Your task to perform on an android device: Open Reddit.com Image 0: 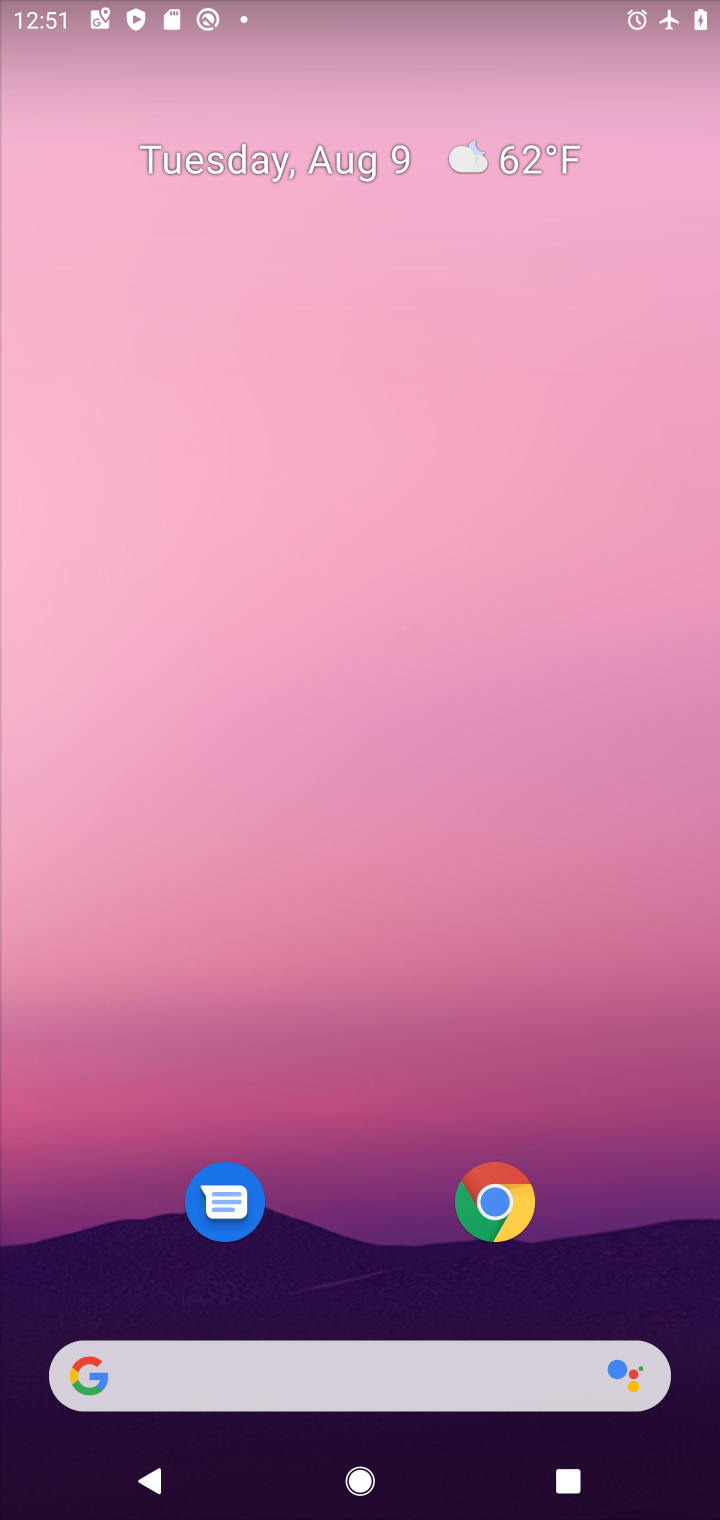
Step 0: click (486, 36)
Your task to perform on an android device: Open Reddit.com Image 1: 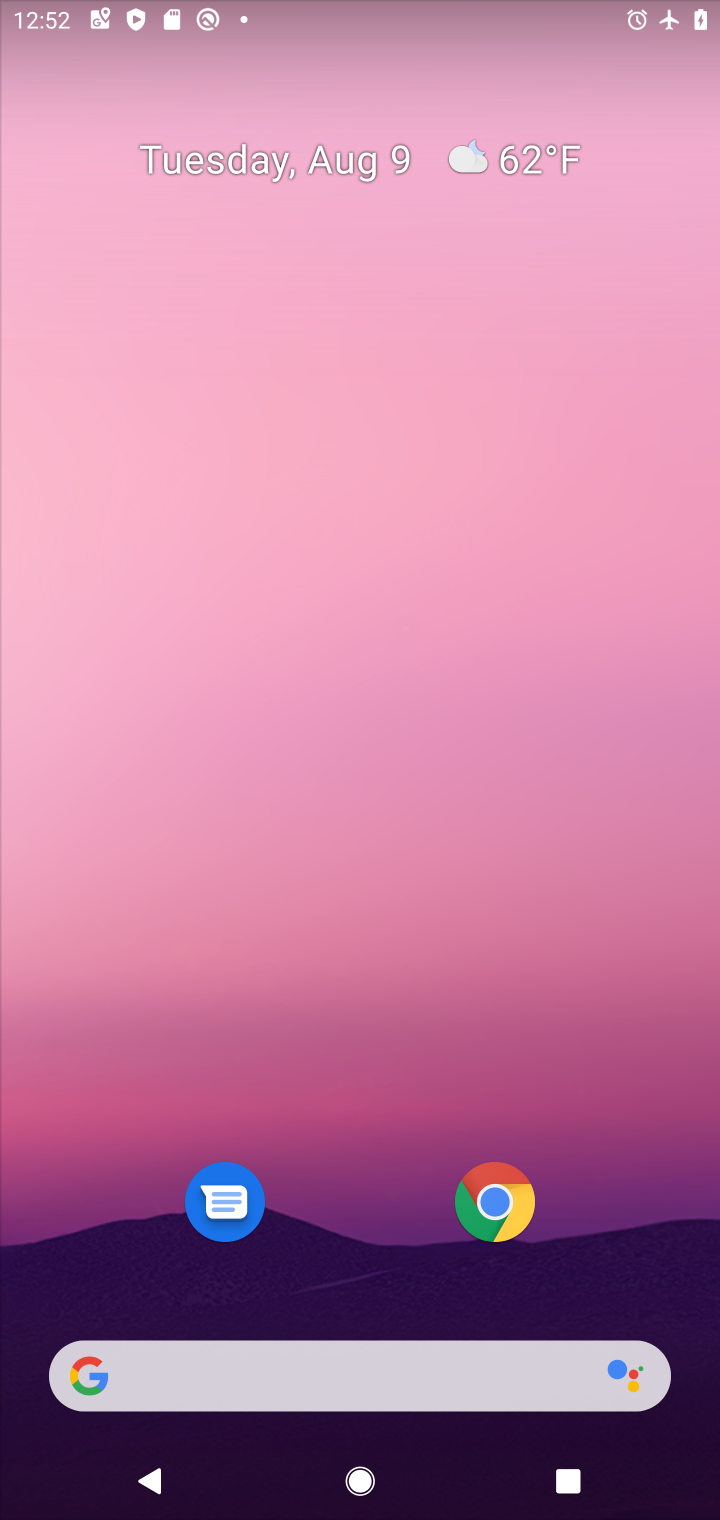
Step 1: drag from (328, 1214) to (355, 442)
Your task to perform on an android device: Open Reddit.com Image 2: 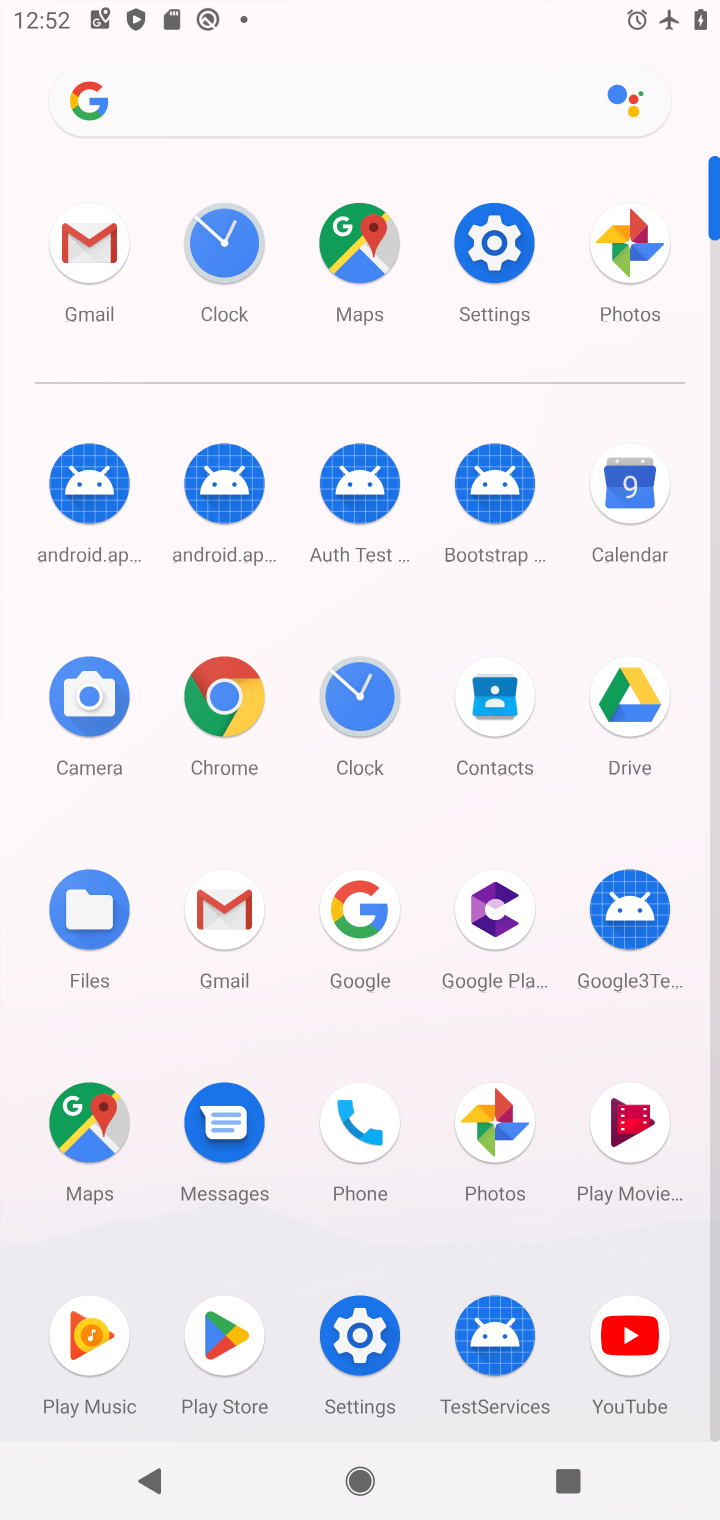
Step 2: click (251, 730)
Your task to perform on an android device: Open Reddit.com Image 3: 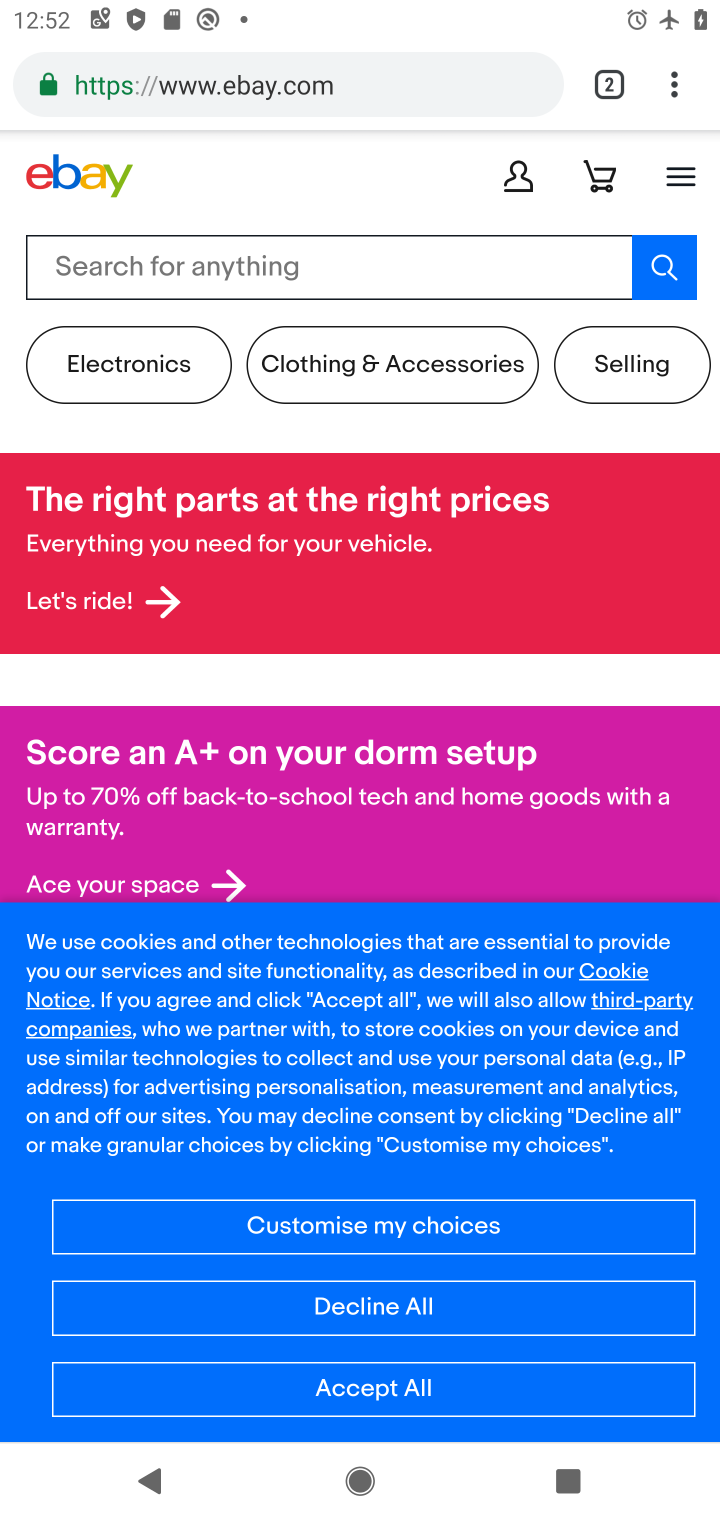
Step 3: click (249, 84)
Your task to perform on an android device: Open Reddit.com Image 4: 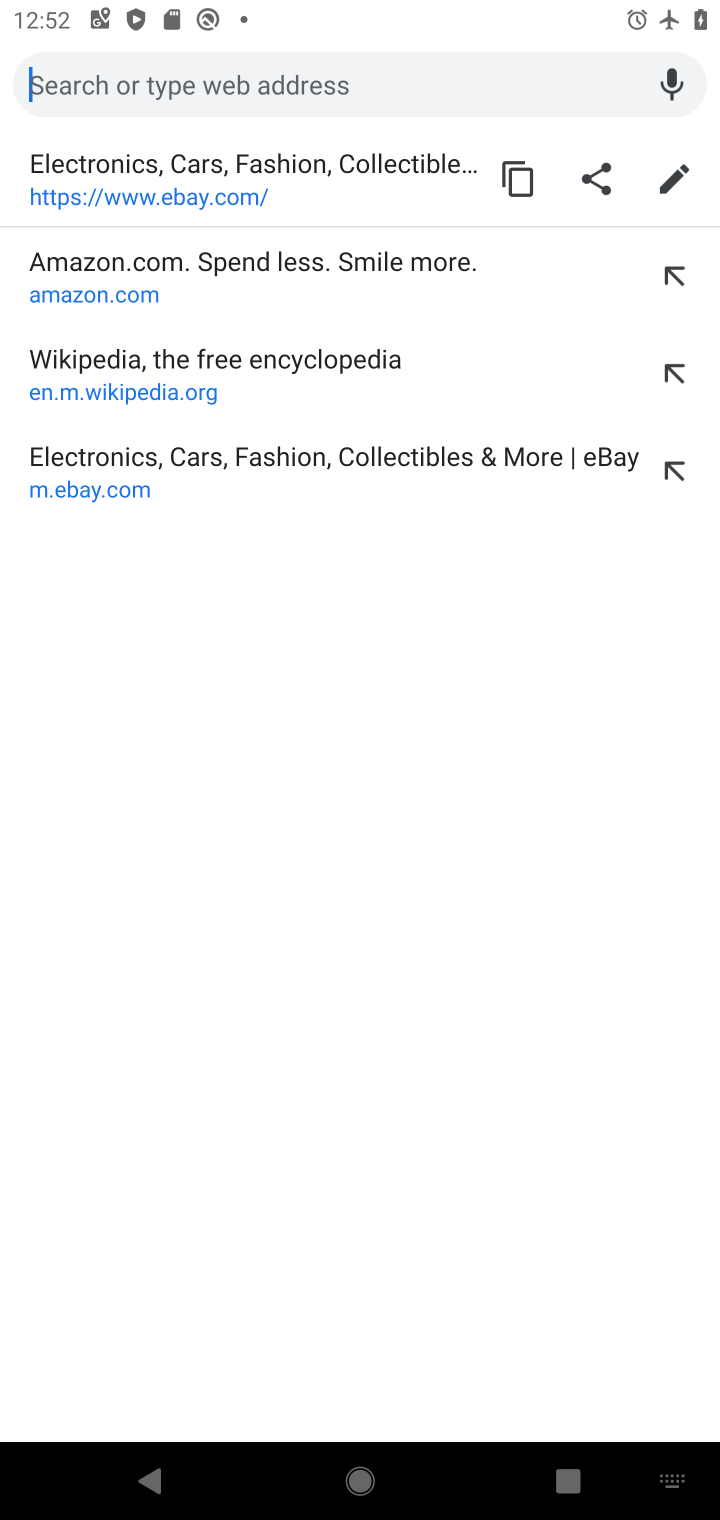
Step 4: type "www.reddit.com"
Your task to perform on an android device: Open Reddit.com Image 5: 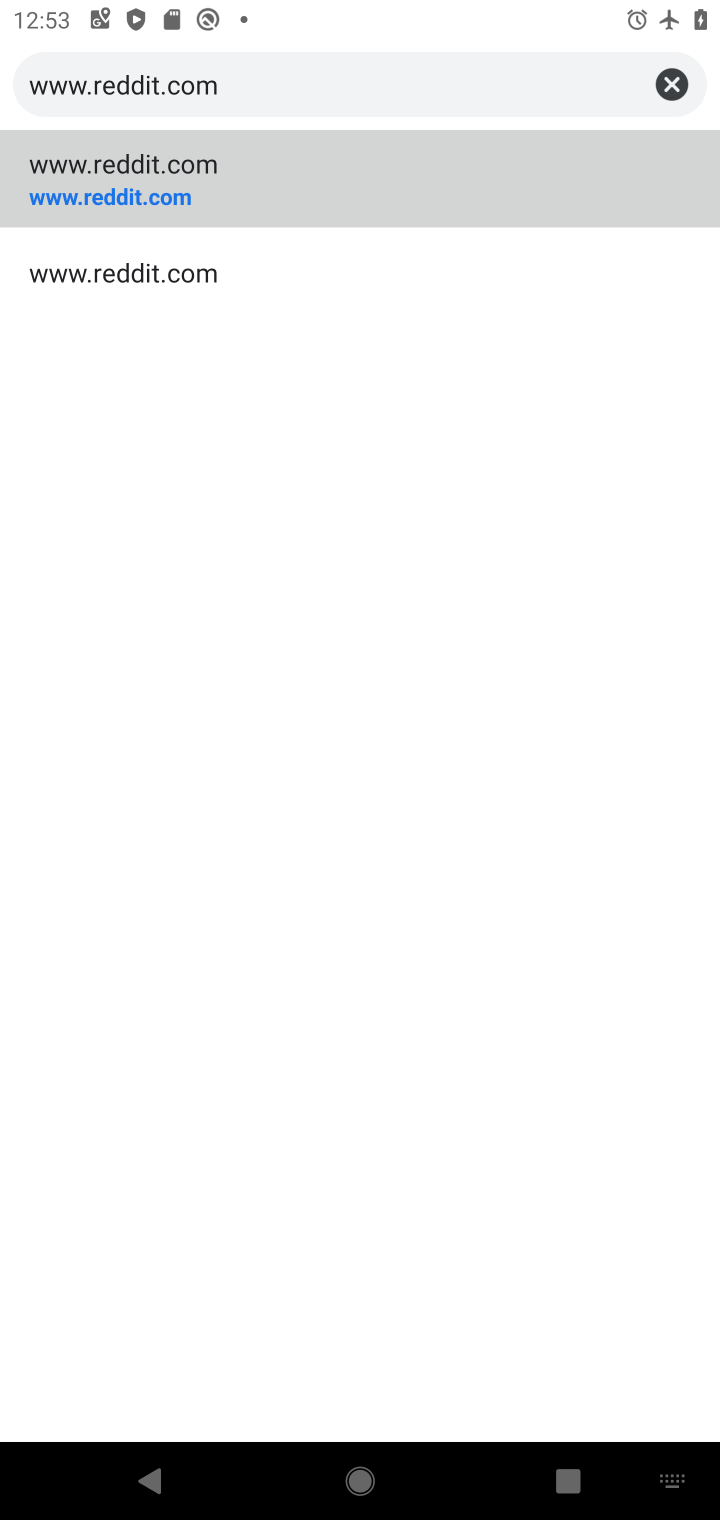
Step 5: click (110, 175)
Your task to perform on an android device: Open Reddit.com Image 6: 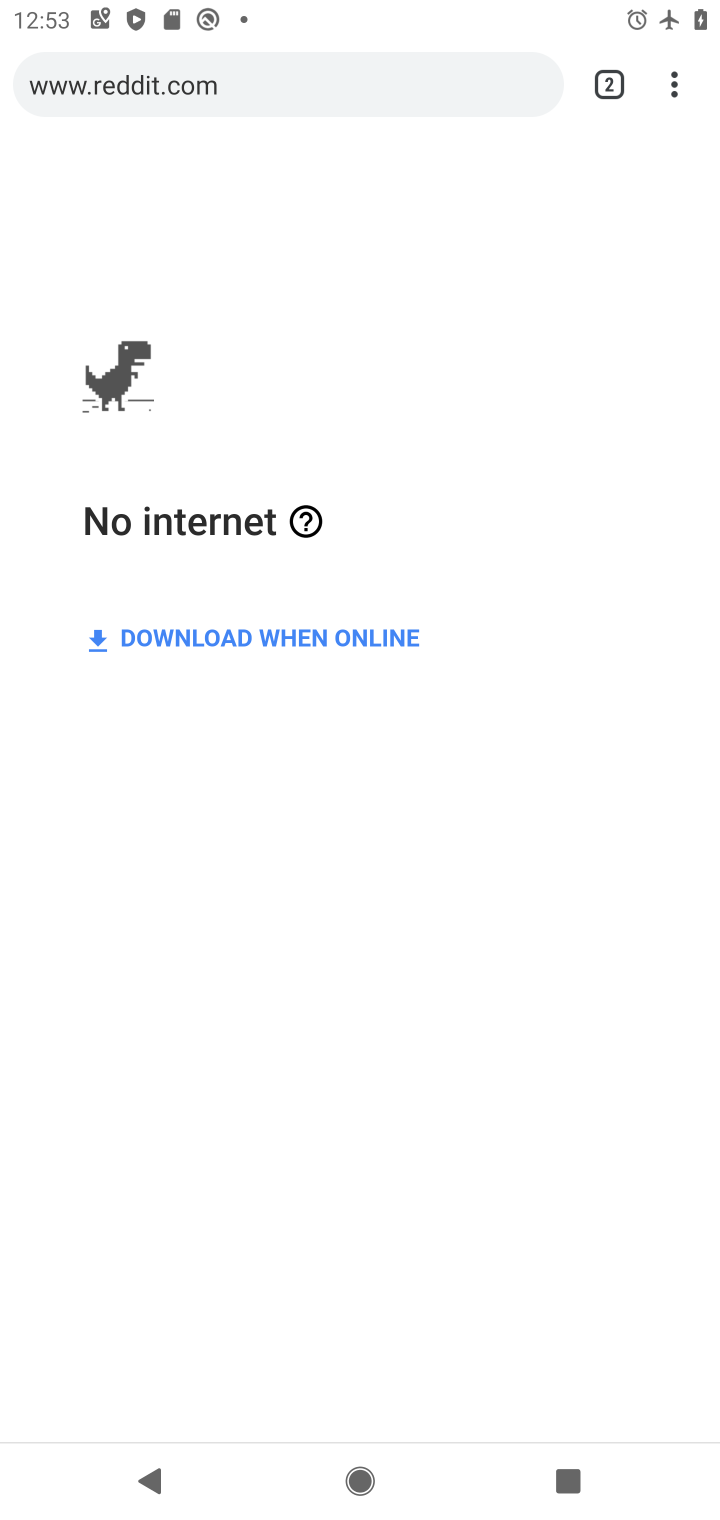
Step 6: press back button
Your task to perform on an android device: Open Reddit.com Image 7: 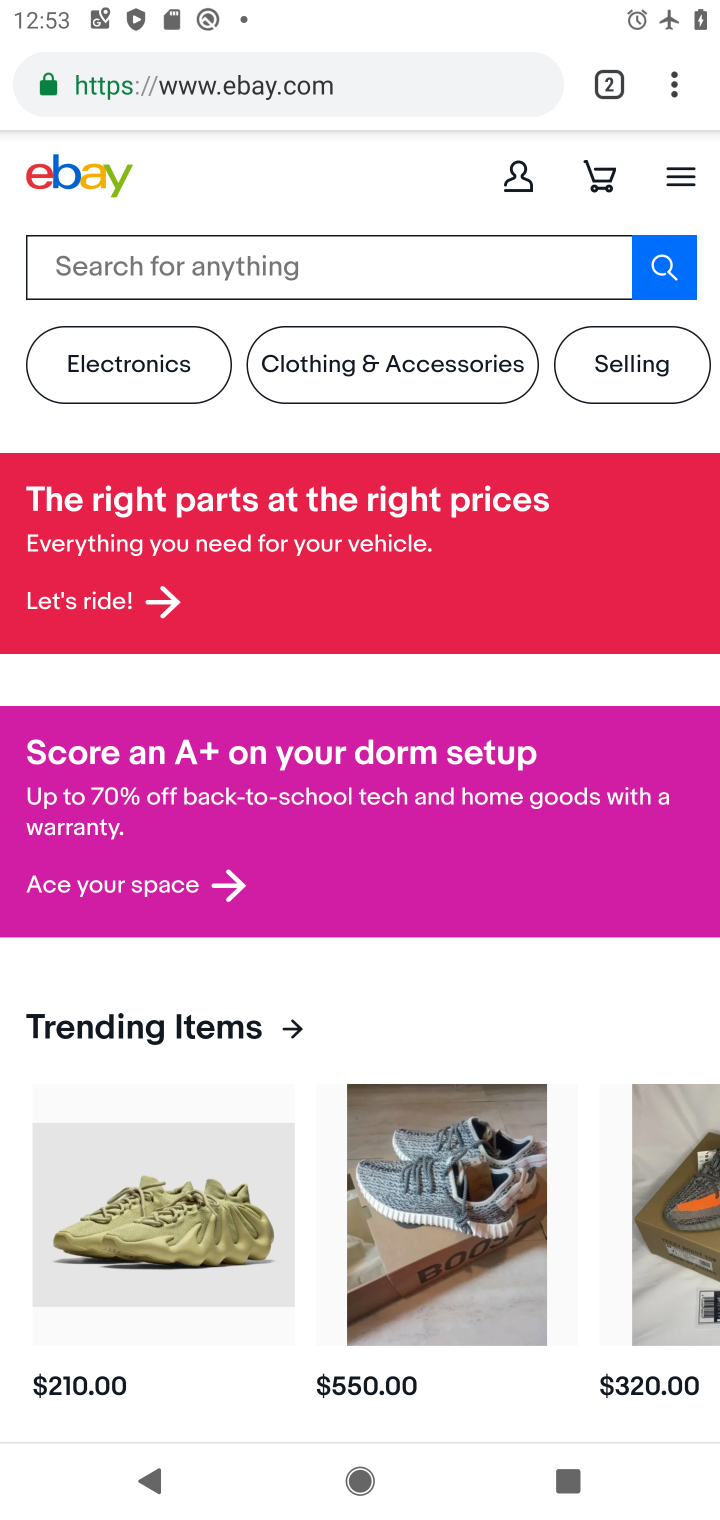
Step 7: press back button
Your task to perform on an android device: Open Reddit.com Image 8: 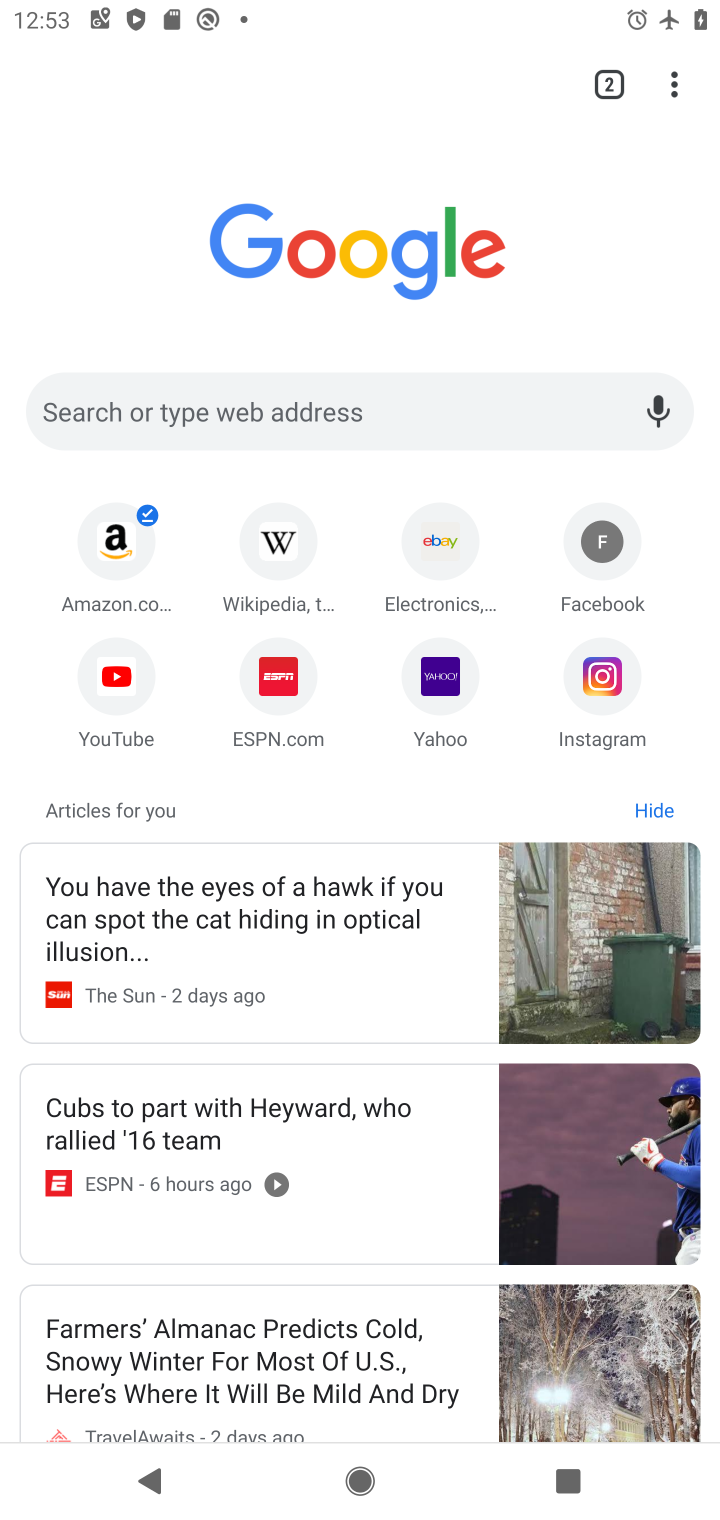
Step 8: press back button
Your task to perform on an android device: Open Reddit.com Image 9: 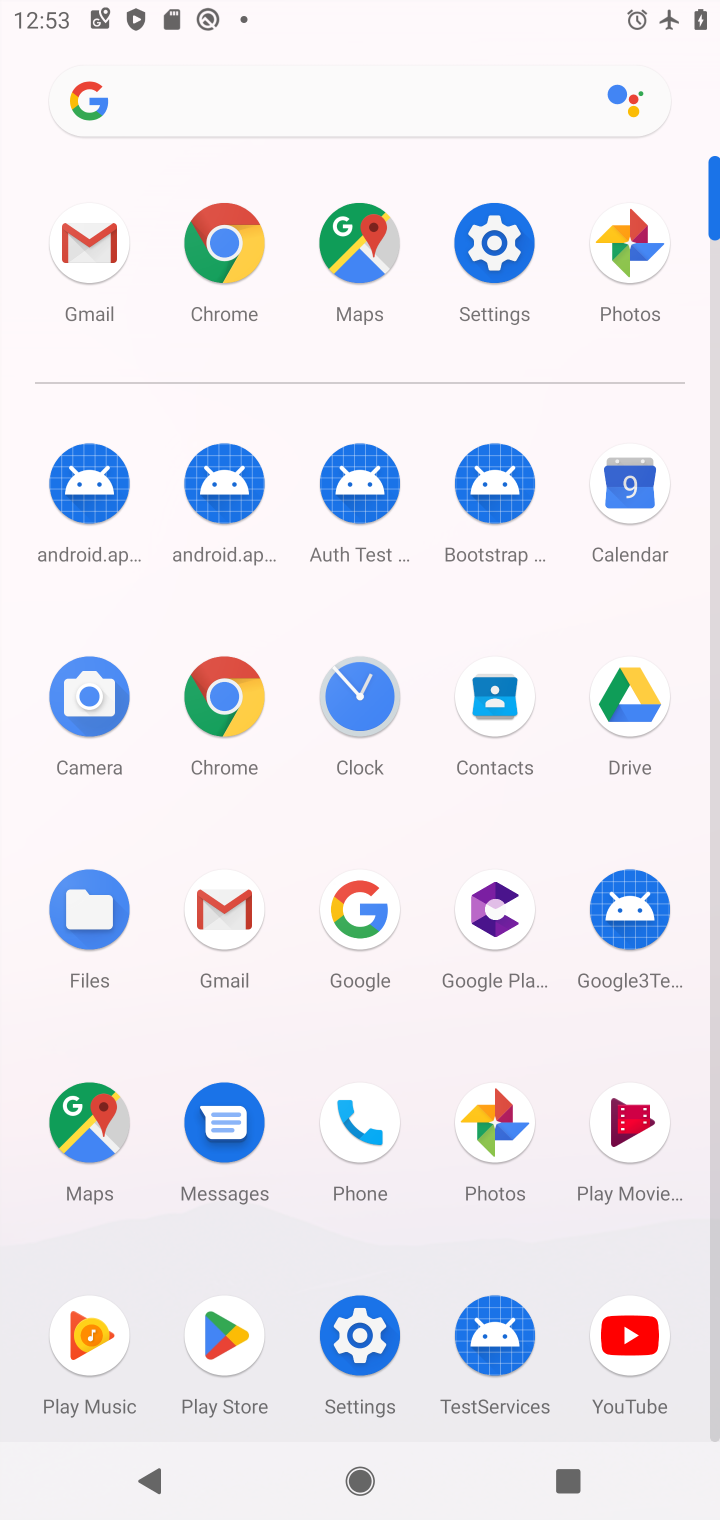
Step 9: click (508, 241)
Your task to perform on an android device: Open Reddit.com Image 10: 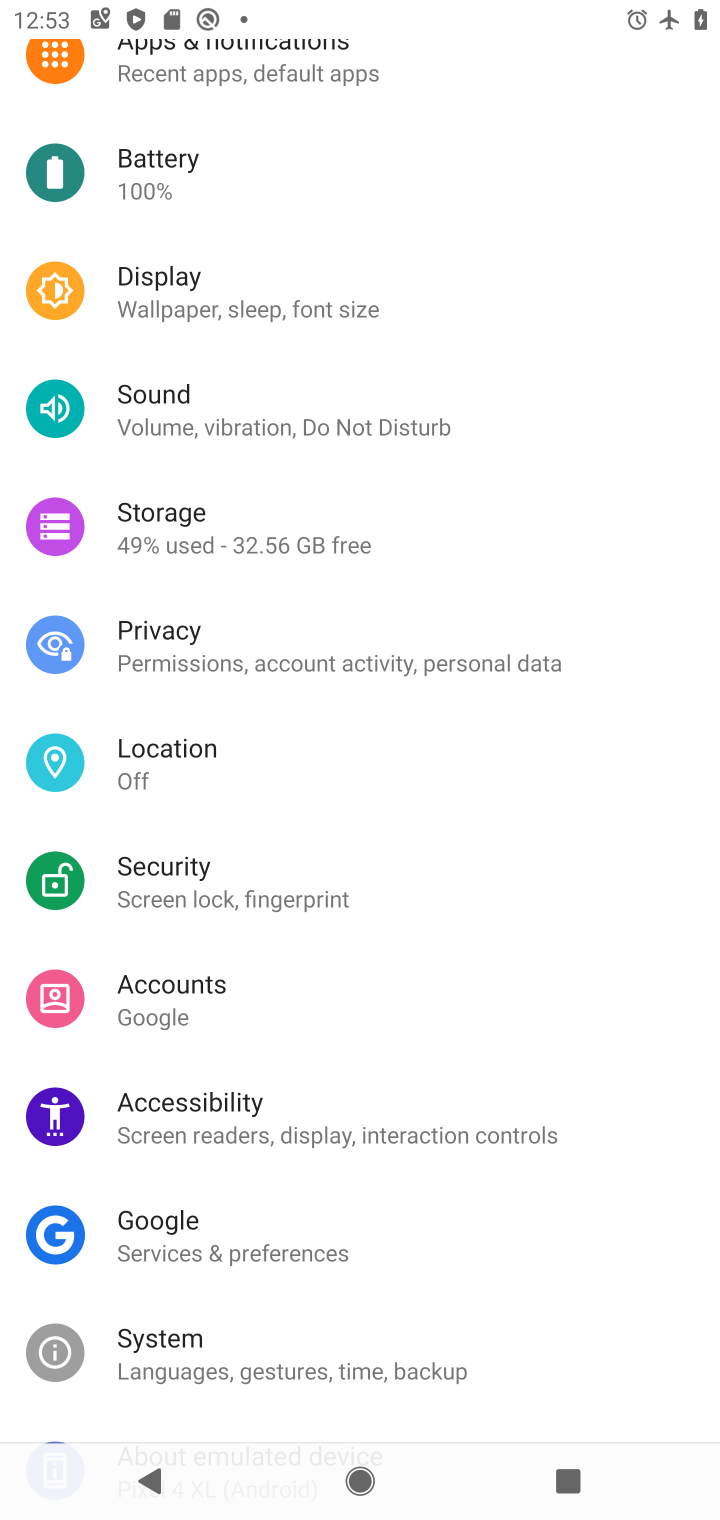
Step 10: drag from (278, 267) to (207, 1445)
Your task to perform on an android device: Open Reddit.com Image 11: 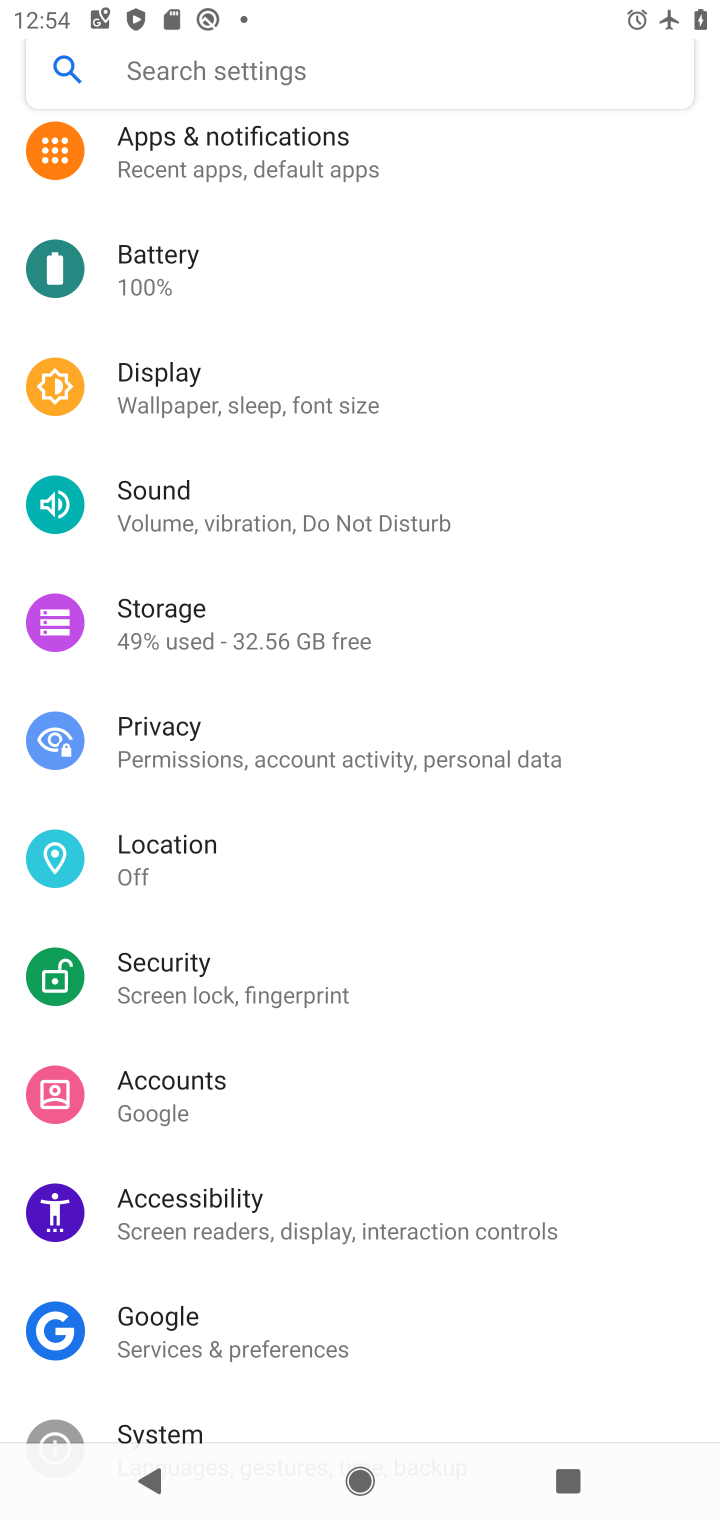
Step 11: drag from (298, 1065) to (298, 1481)
Your task to perform on an android device: Open Reddit.com Image 12: 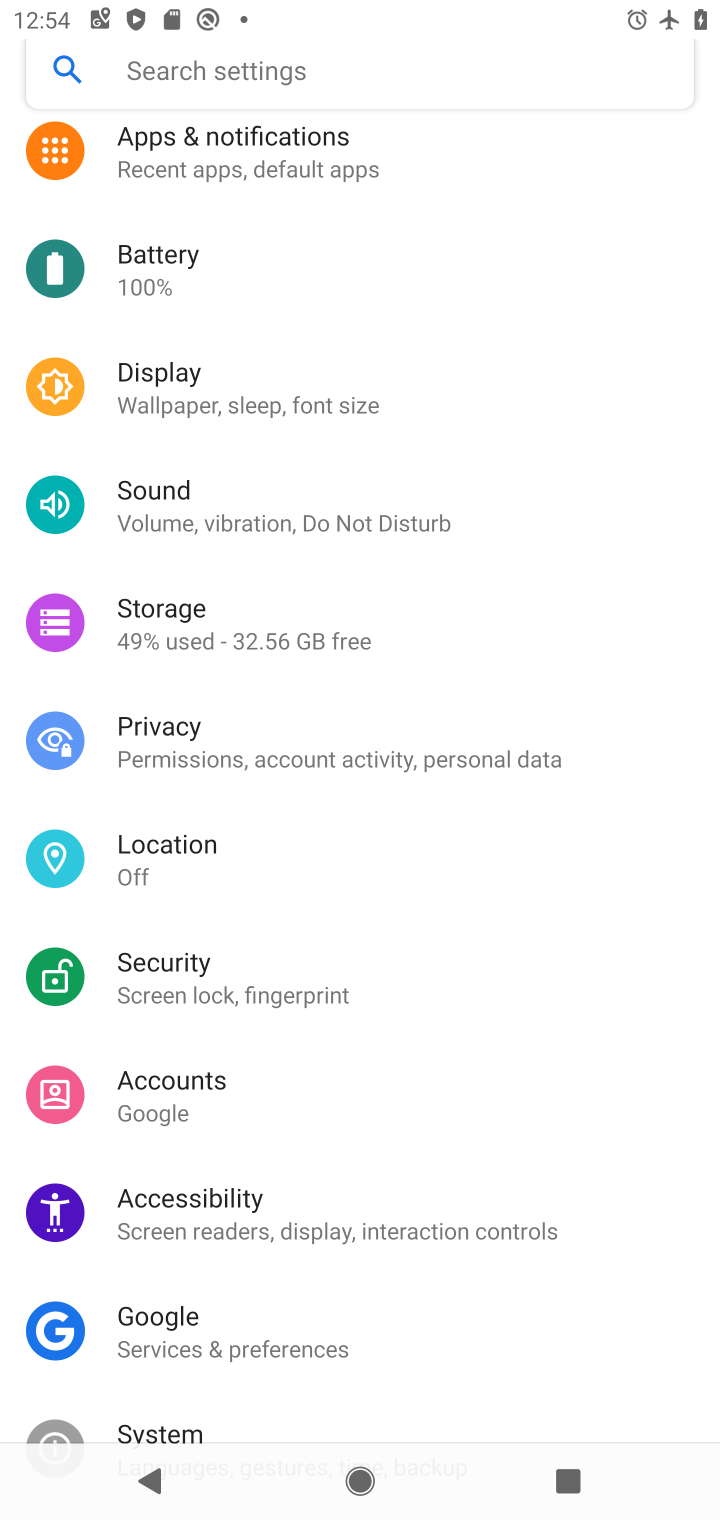
Step 12: drag from (275, 434) to (129, 1493)
Your task to perform on an android device: Open Reddit.com Image 13: 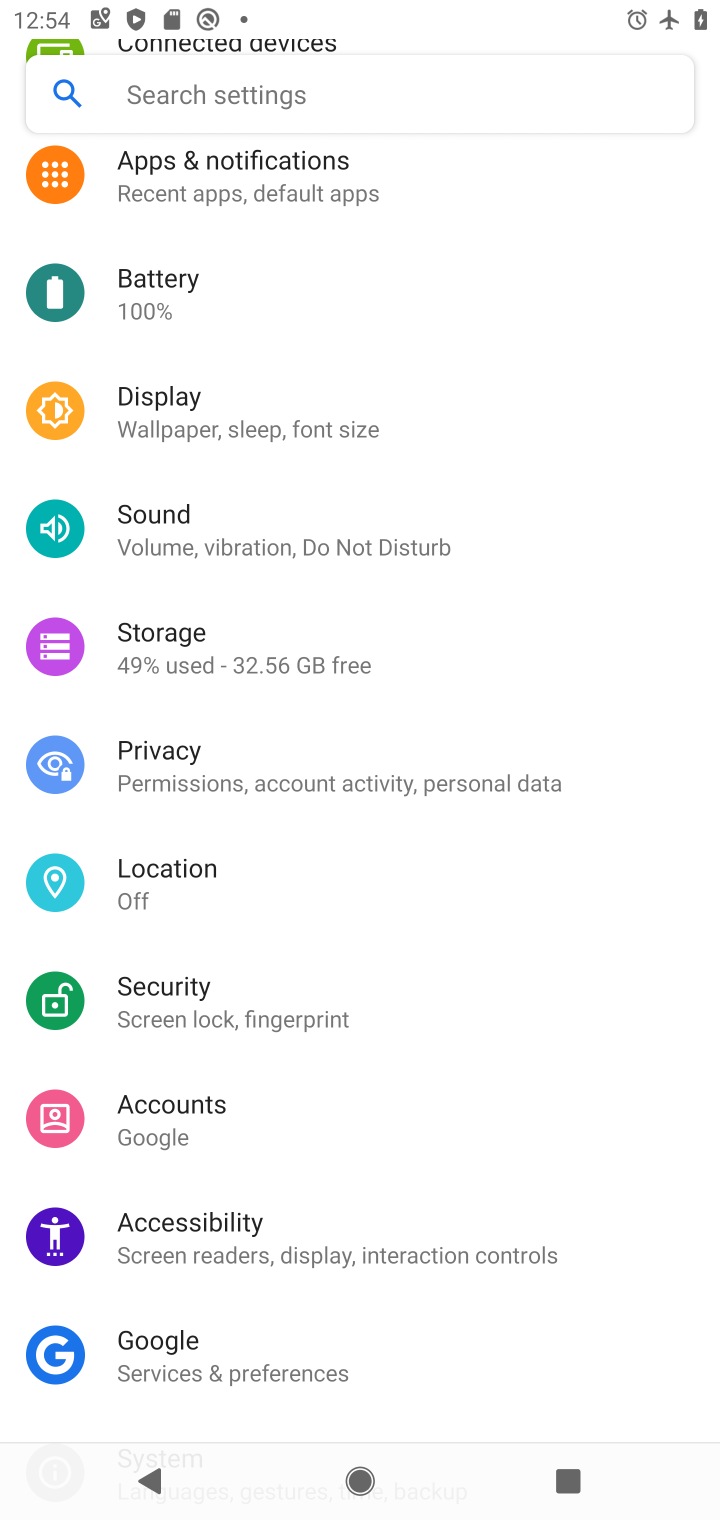
Step 13: drag from (282, 163) to (327, 1500)
Your task to perform on an android device: Open Reddit.com Image 14: 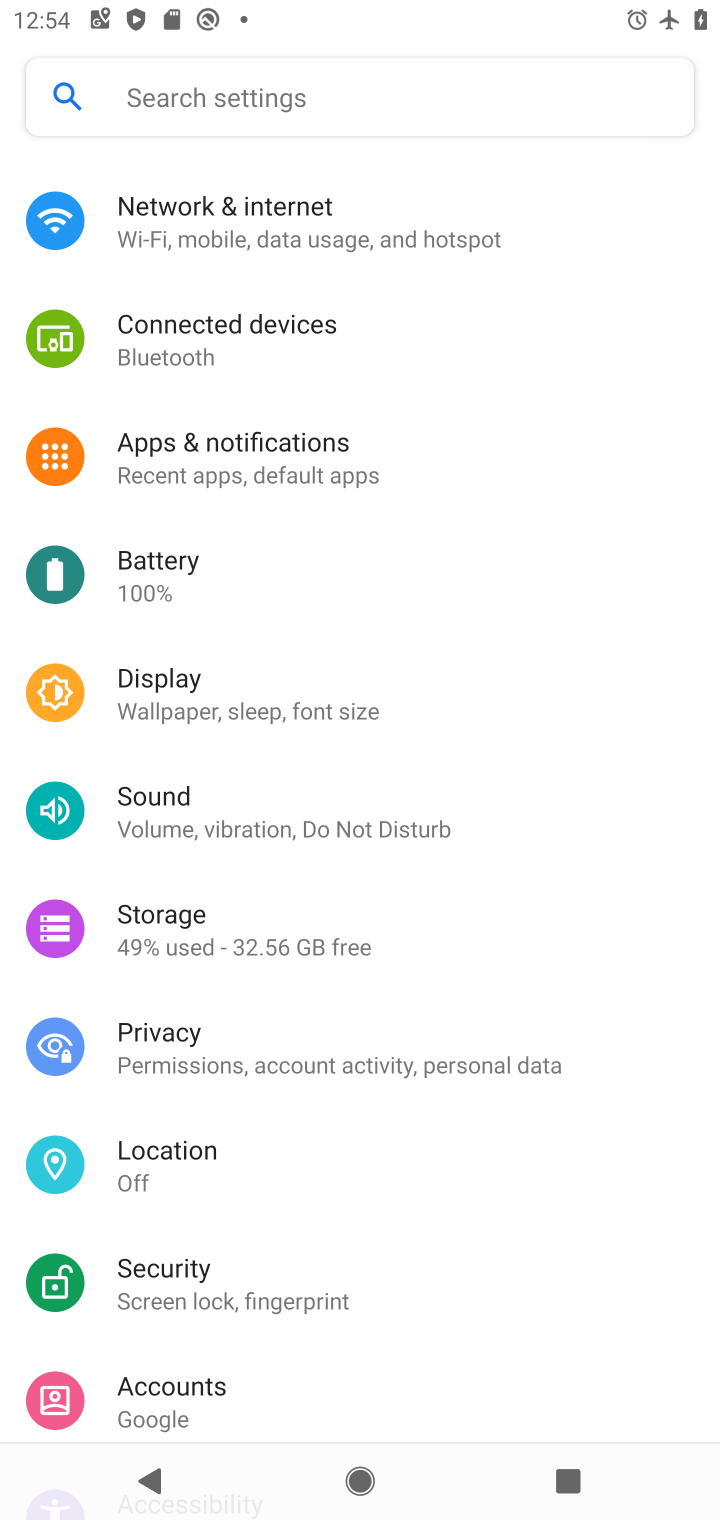
Step 14: click (223, 237)
Your task to perform on an android device: Open Reddit.com Image 15: 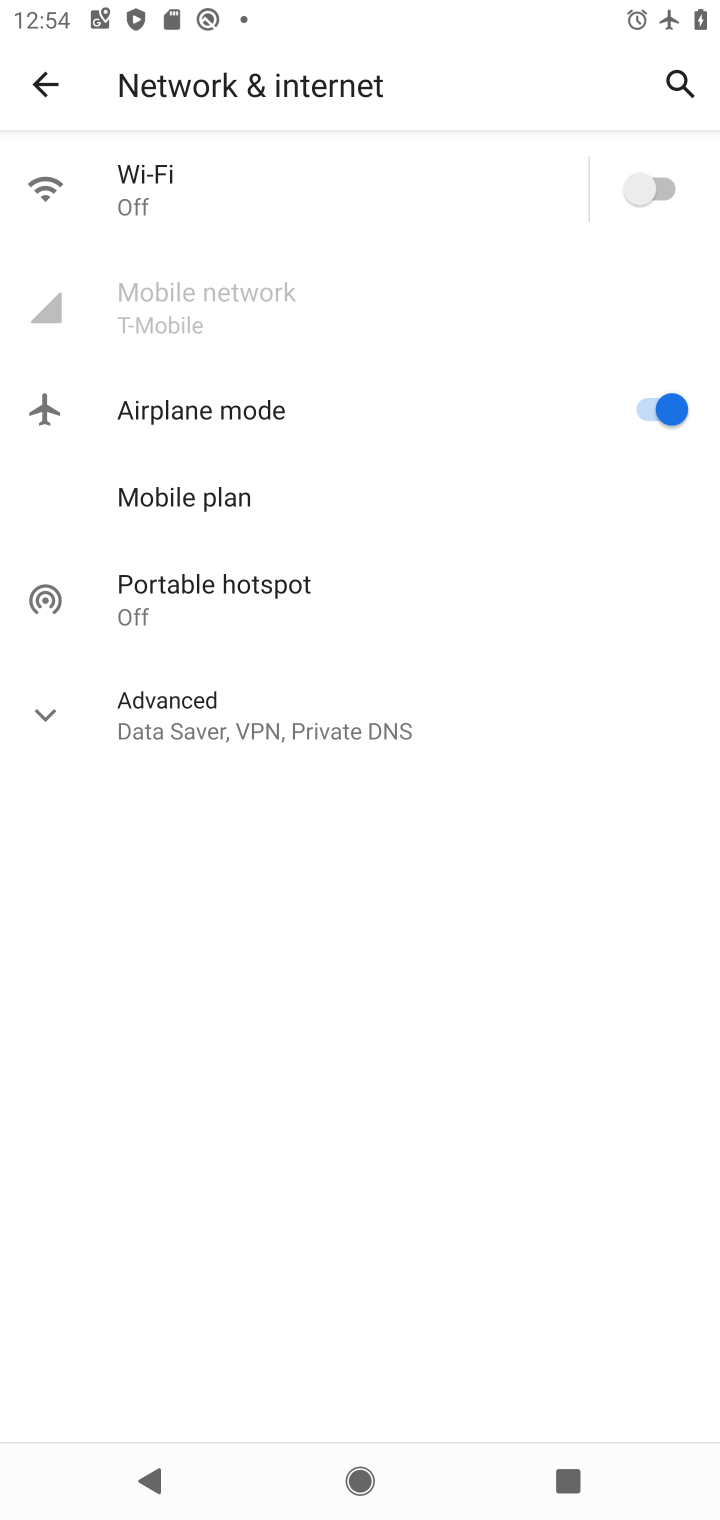
Step 15: click (250, 232)
Your task to perform on an android device: Open Reddit.com Image 16: 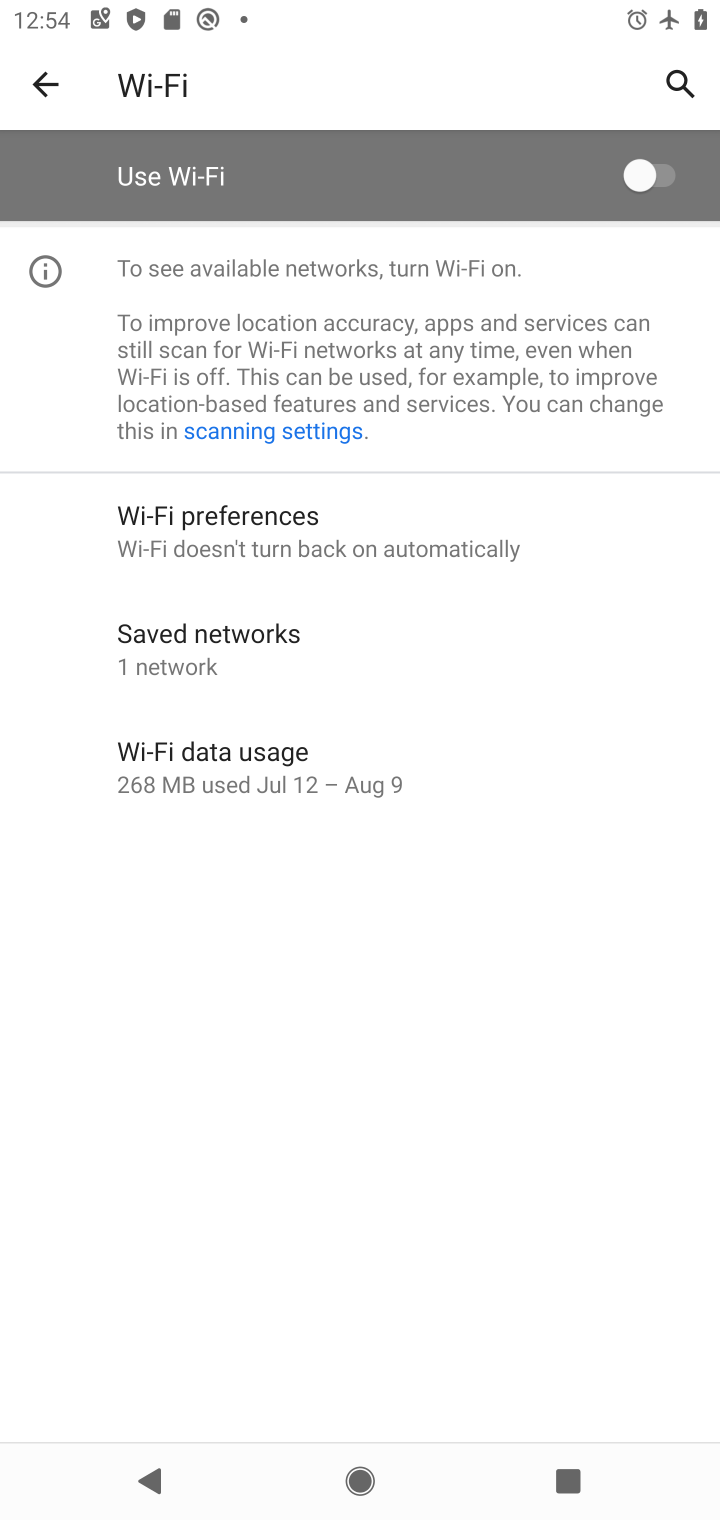
Step 16: click (38, 65)
Your task to perform on an android device: Open Reddit.com Image 17: 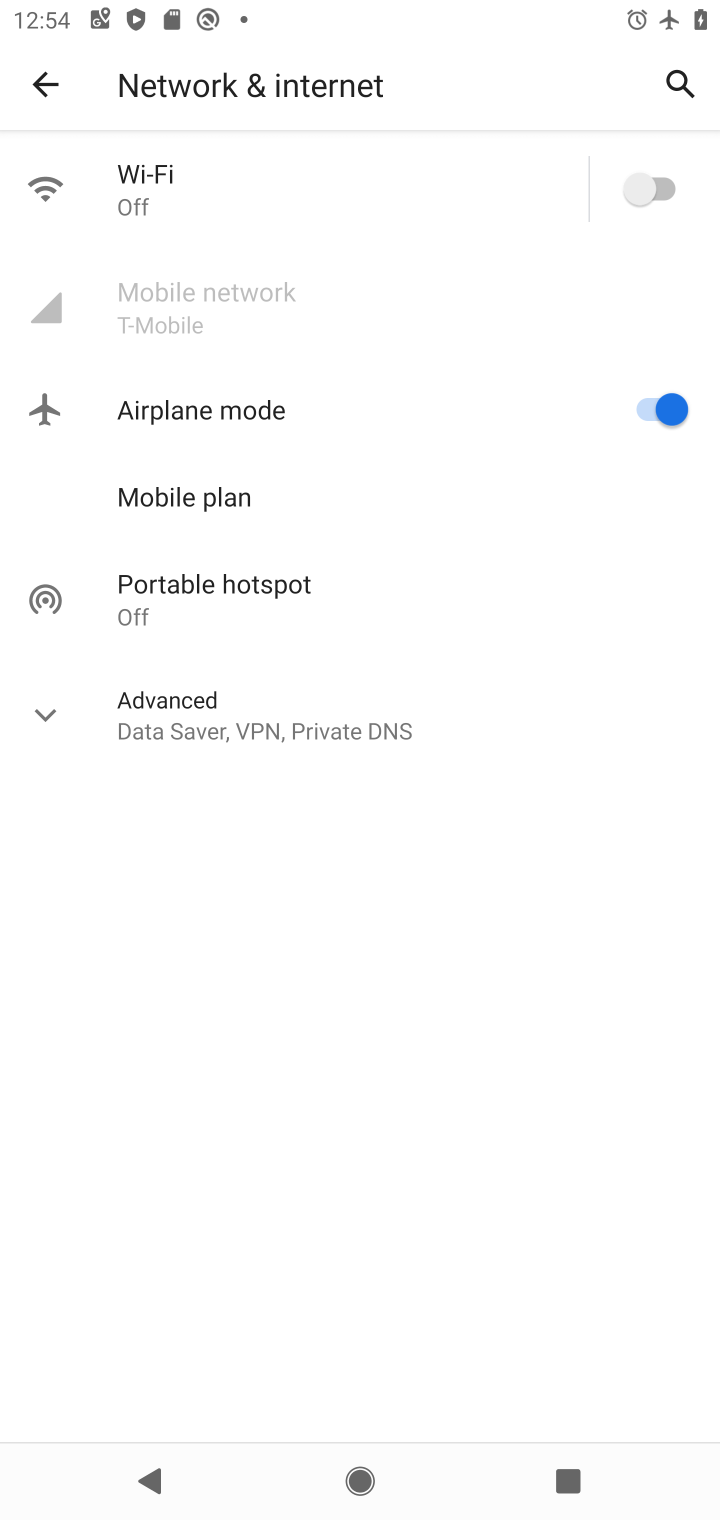
Step 17: click (652, 409)
Your task to perform on an android device: Open Reddit.com Image 18: 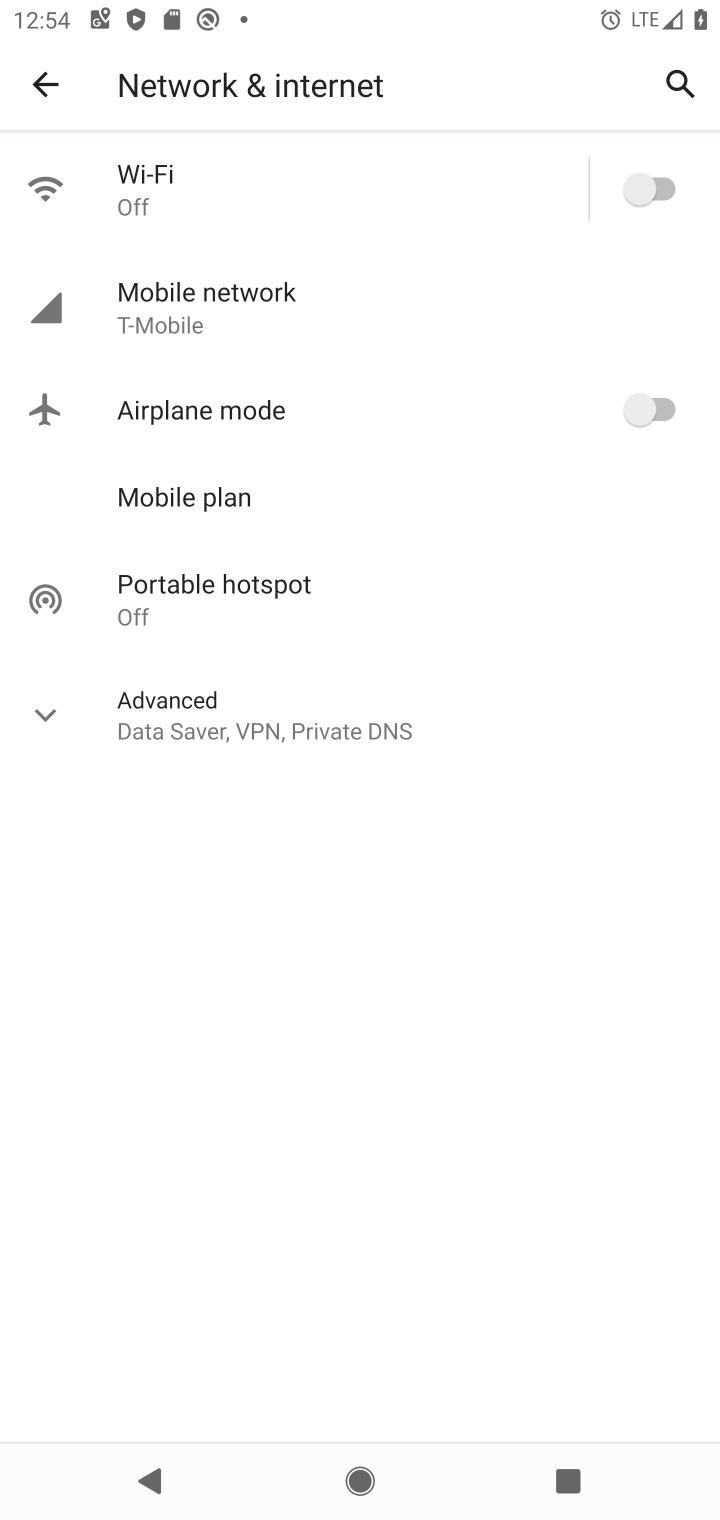
Step 18: task complete